Your task to perform on an android device: snooze an email in the gmail app Image 0: 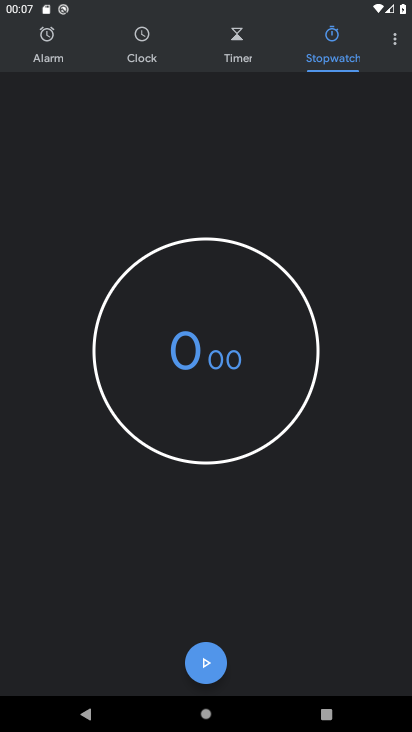
Step 0: press home button
Your task to perform on an android device: snooze an email in the gmail app Image 1: 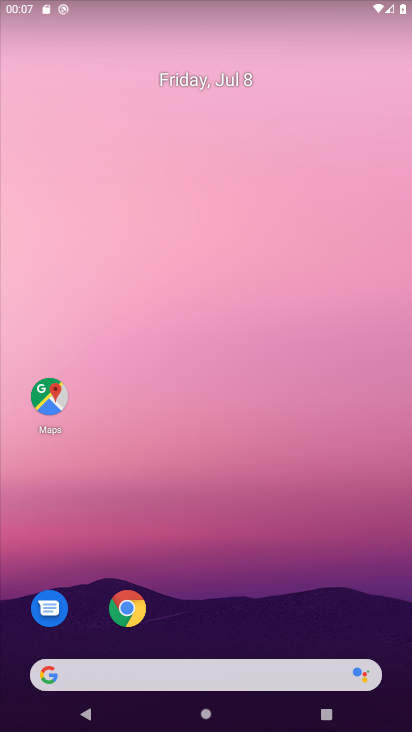
Step 1: drag from (226, 620) to (225, 97)
Your task to perform on an android device: snooze an email in the gmail app Image 2: 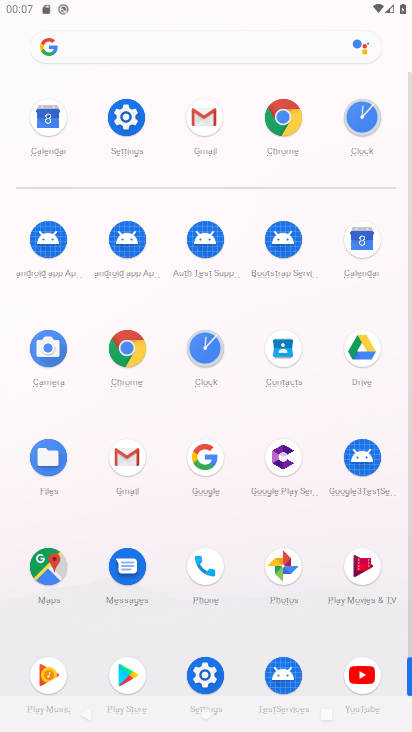
Step 2: click (196, 124)
Your task to perform on an android device: snooze an email in the gmail app Image 3: 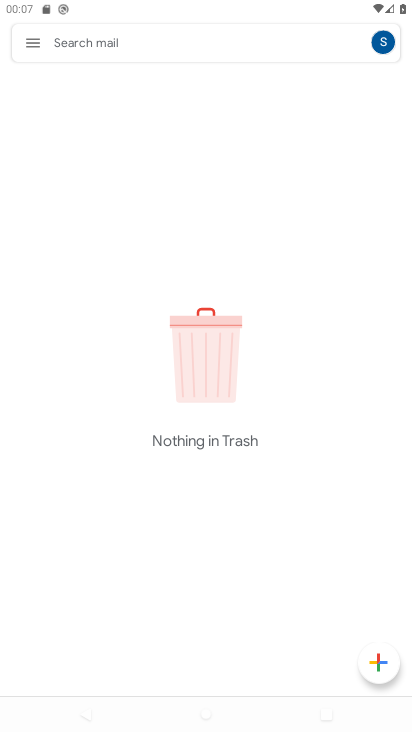
Step 3: click (36, 42)
Your task to perform on an android device: snooze an email in the gmail app Image 4: 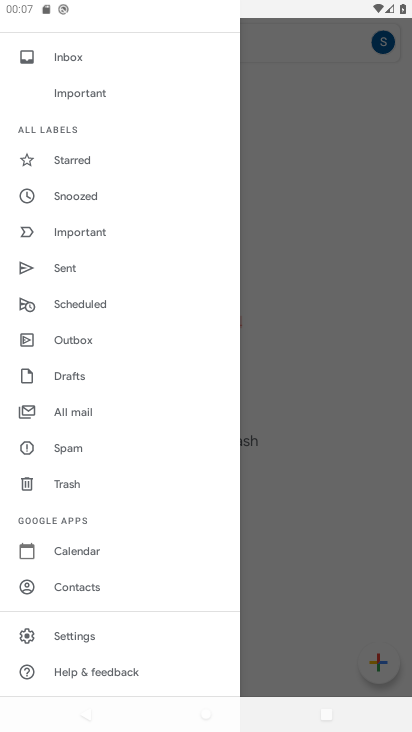
Step 4: click (86, 187)
Your task to perform on an android device: snooze an email in the gmail app Image 5: 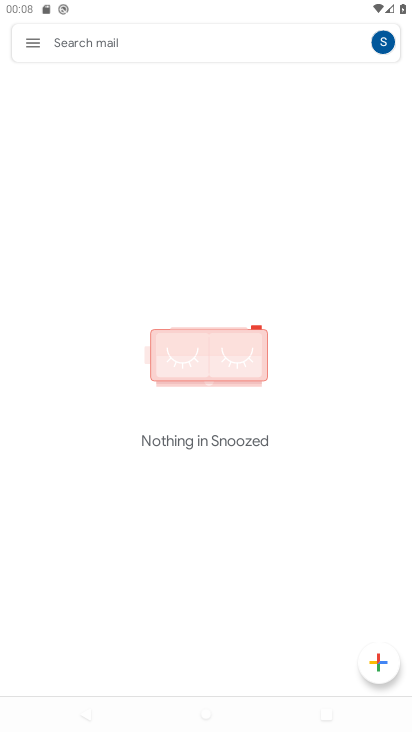
Step 5: task complete